Your task to perform on an android device: open chrome privacy settings Image 0: 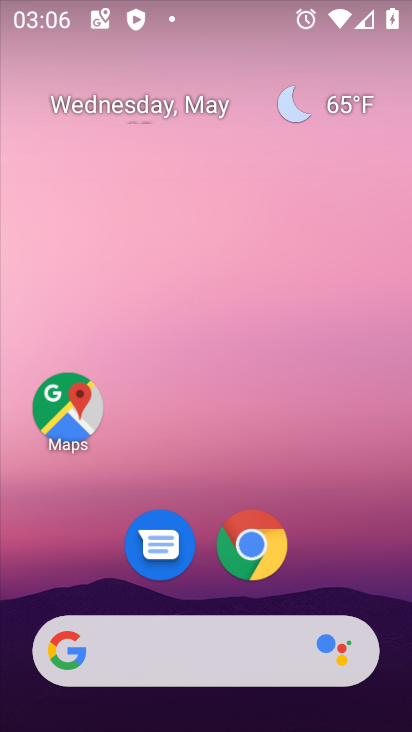
Step 0: drag from (353, 543) to (215, 45)
Your task to perform on an android device: open chrome privacy settings Image 1: 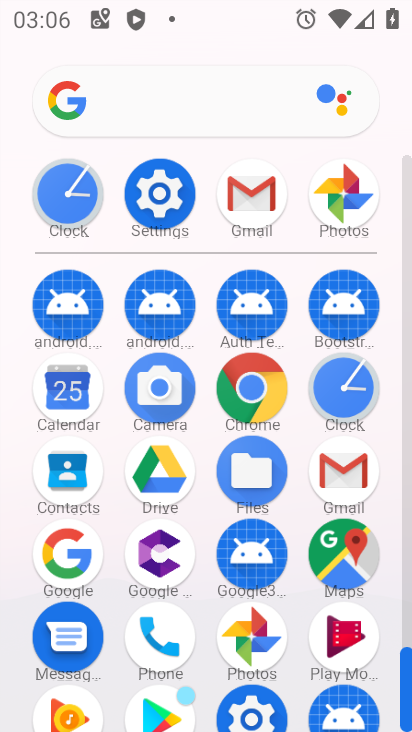
Step 1: click (252, 372)
Your task to perform on an android device: open chrome privacy settings Image 2: 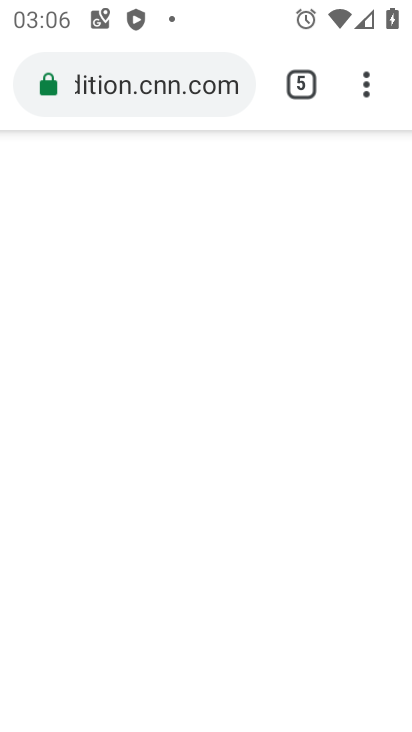
Step 2: click (357, 85)
Your task to perform on an android device: open chrome privacy settings Image 3: 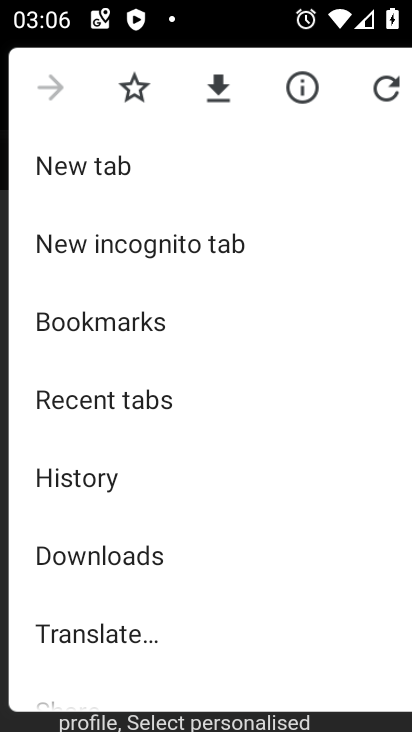
Step 3: drag from (201, 640) to (171, 57)
Your task to perform on an android device: open chrome privacy settings Image 4: 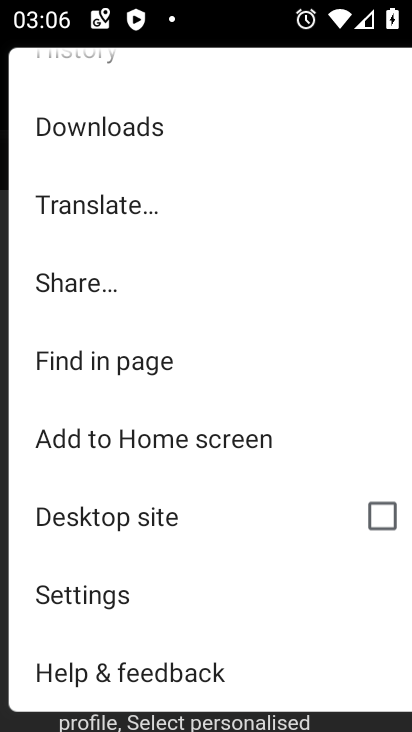
Step 4: click (149, 589)
Your task to perform on an android device: open chrome privacy settings Image 5: 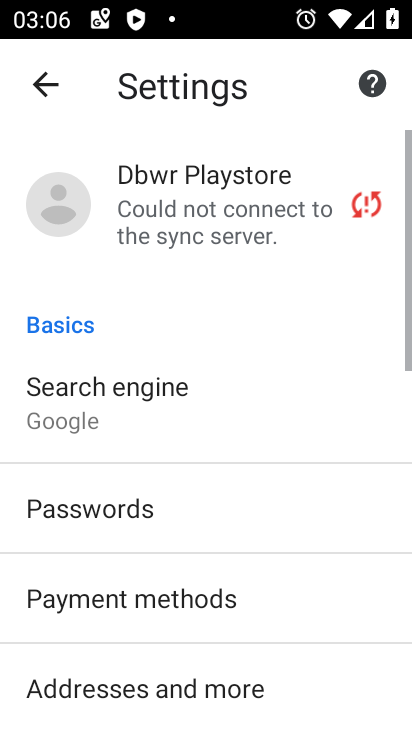
Step 5: drag from (266, 575) to (252, 237)
Your task to perform on an android device: open chrome privacy settings Image 6: 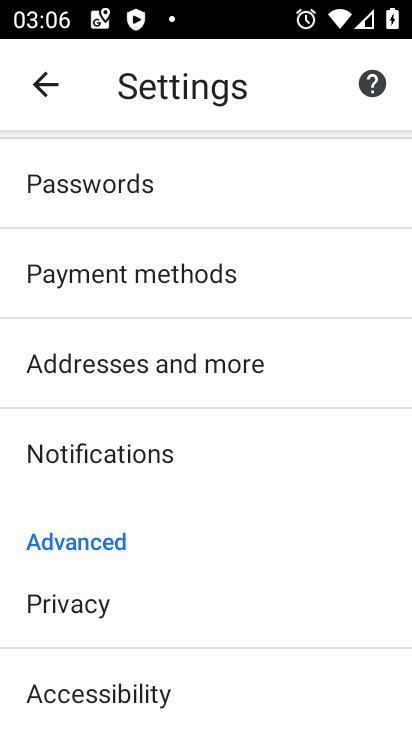
Step 6: click (186, 611)
Your task to perform on an android device: open chrome privacy settings Image 7: 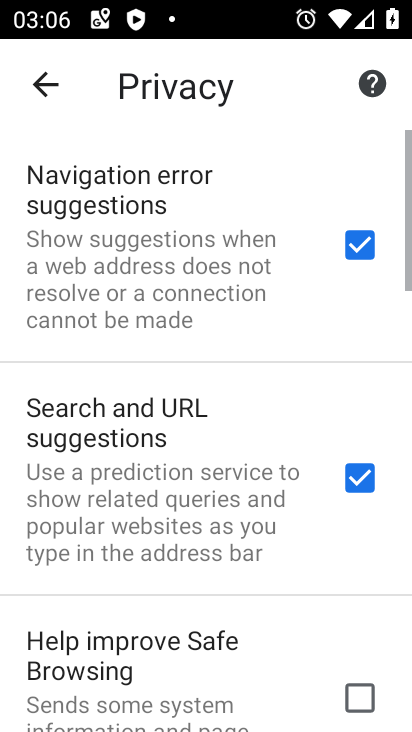
Step 7: task complete